Your task to perform on an android device: Is it going to rain this weekend? Image 0: 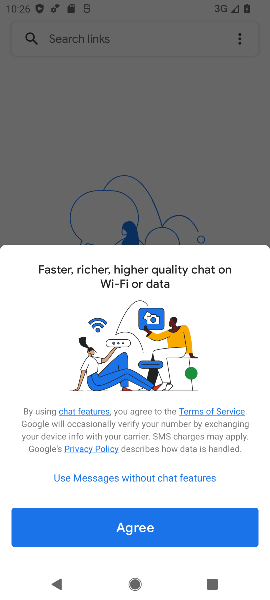
Step 0: press home button
Your task to perform on an android device: Is it going to rain this weekend? Image 1: 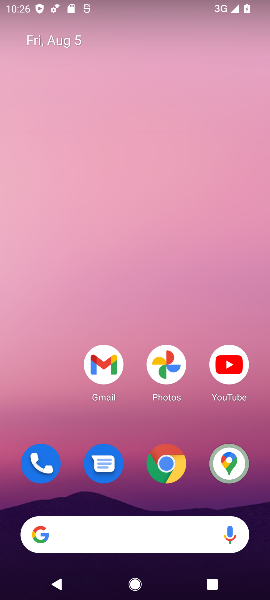
Step 1: drag from (123, 442) to (122, 69)
Your task to perform on an android device: Is it going to rain this weekend? Image 2: 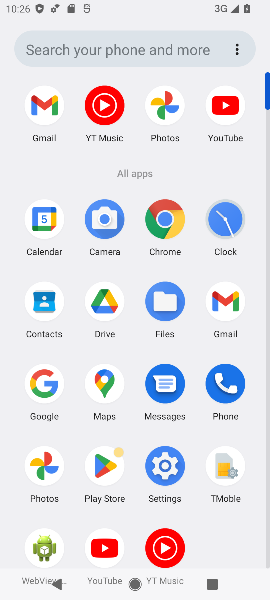
Step 2: click (157, 214)
Your task to perform on an android device: Is it going to rain this weekend? Image 3: 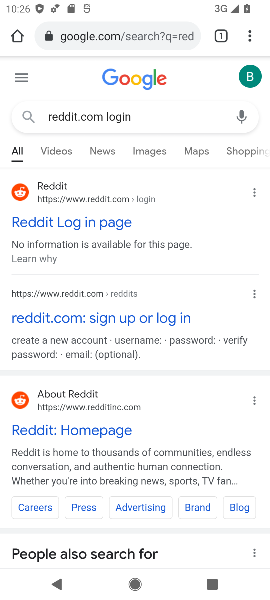
Step 3: click (255, 33)
Your task to perform on an android device: Is it going to rain this weekend? Image 4: 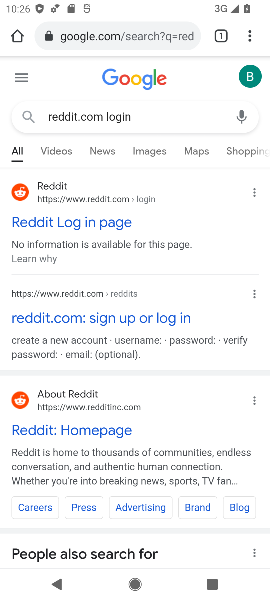
Step 4: click (246, 37)
Your task to perform on an android device: Is it going to rain this weekend? Image 5: 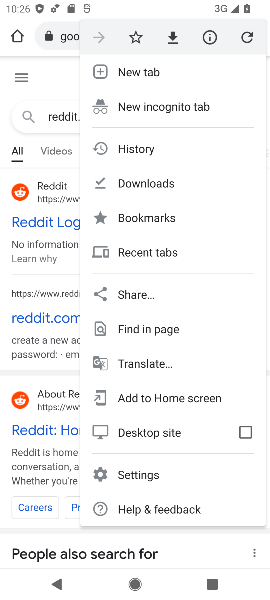
Step 5: click (138, 71)
Your task to perform on an android device: Is it going to rain this weekend? Image 6: 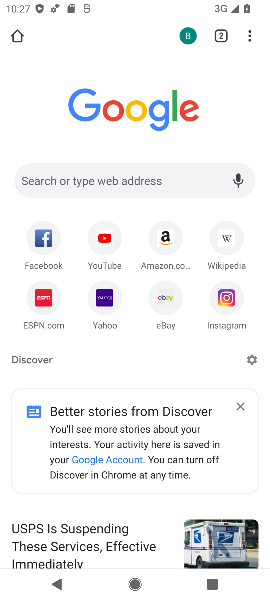
Step 6: click (114, 172)
Your task to perform on an android device: Is it going to rain this weekend? Image 7: 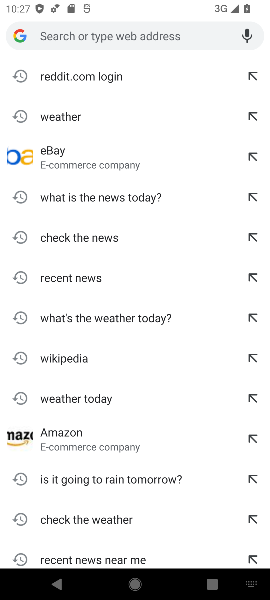
Step 7: type "Is it going to rain this weekend? "
Your task to perform on an android device: Is it going to rain this weekend? Image 8: 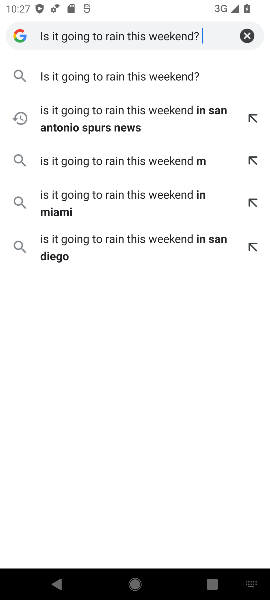
Step 8: click (98, 68)
Your task to perform on an android device: Is it going to rain this weekend? Image 9: 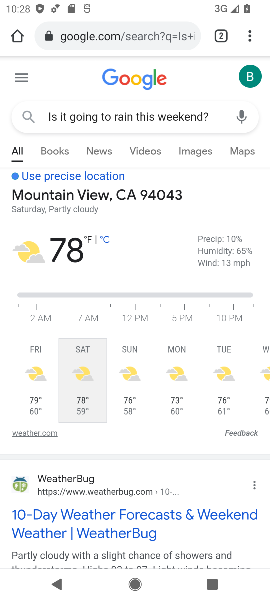
Step 9: task complete